Your task to perform on an android device: Search for sushi restaurants on Maps Image 0: 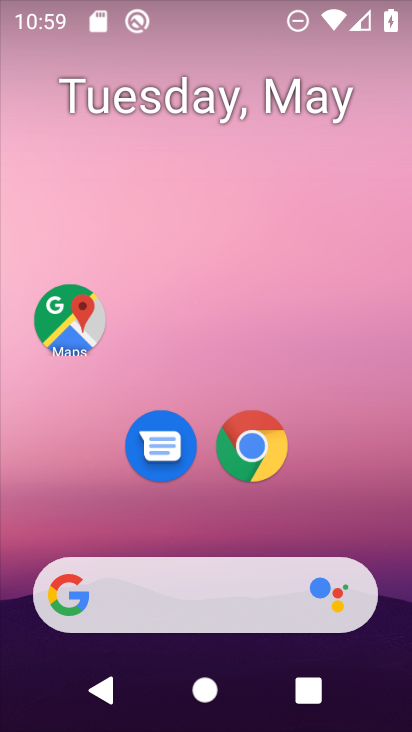
Step 0: click (79, 330)
Your task to perform on an android device: Search for sushi restaurants on Maps Image 1: 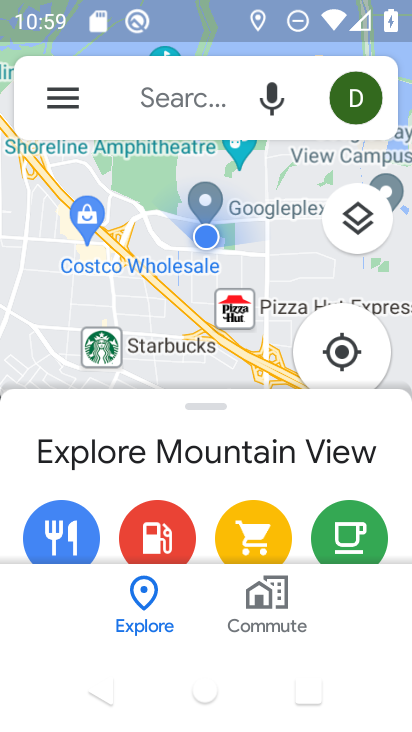
Step 1: click (163, 86)
Your task to perform on an android device: Search for sushi restaurants on Maps Image 2: 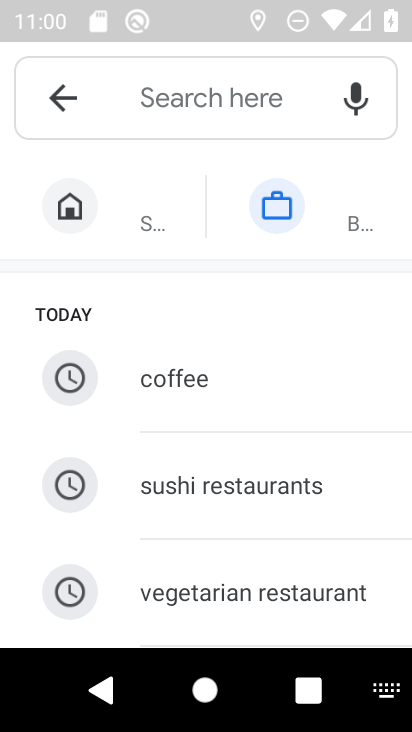
Step 2: type "Sushi Restaurants"
Your task to perform on an android device: Search for sushi restaurants on Maps Image 3: 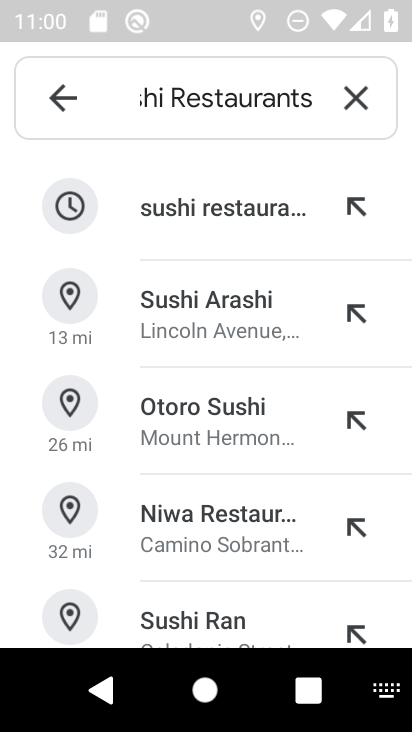
Step 3: click (227, 217)
Your task to perform on an android device: Search for sushi restaurants on Maps Image 4: 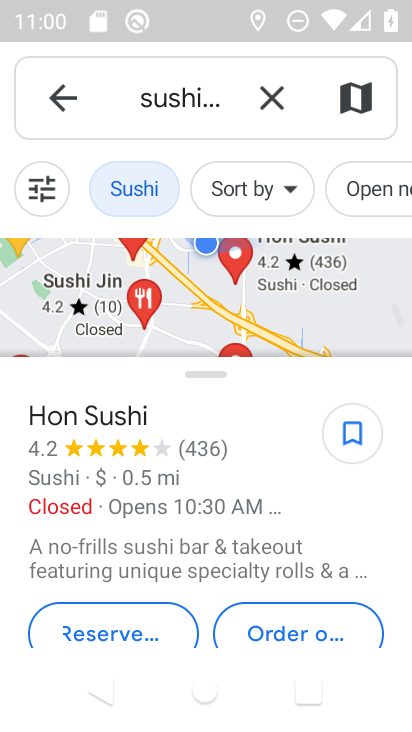
Step 4: task complete